Your task to perform on an android device: empty trash in google photos Image 0: 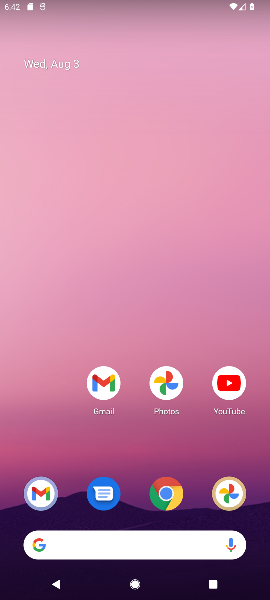
Step 0: press home button
Your task to perform on an android device: empty trash in google photos Image 1: 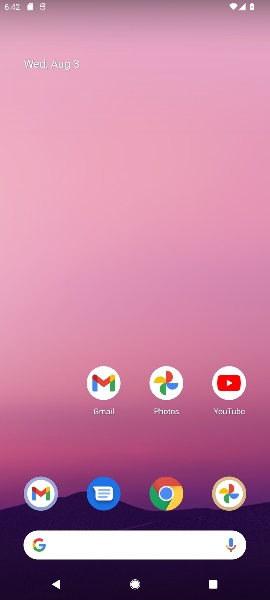
Step 1: drag from (104, 434) to (138, 135)
Your task to perform on an android device: empty trash in google photos Image 2: 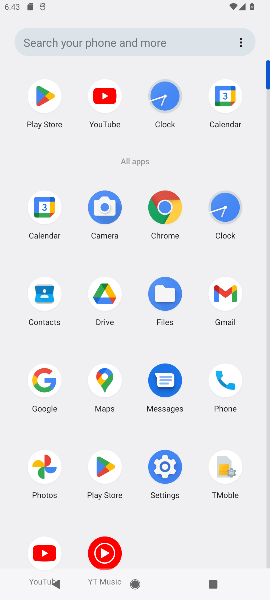
Step 2: click (45, 461)
Your task to perform on an android device: empty trash in google photos Image 3: 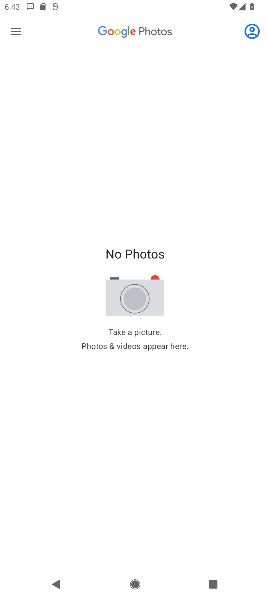
Step 3: click (8, 36)
Your task to perform on an android device: empty trash in google photos Image 4: 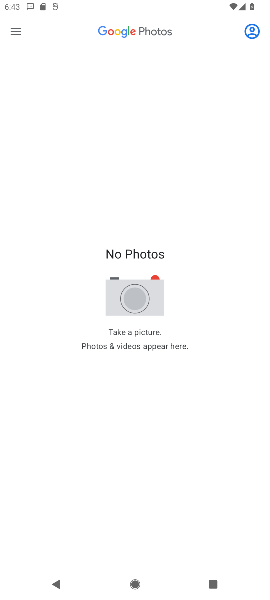
Step 4: click (16, 28)
Your task to perform on an android device: empty trash in google photos Image 5: 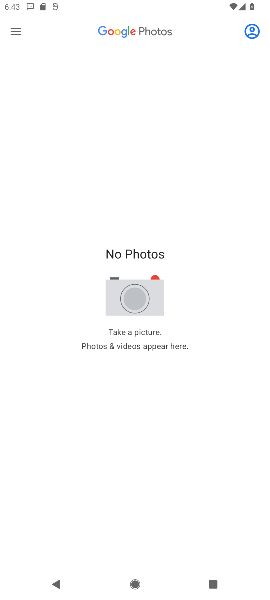
Step 5: click (19, 28)
Your task to perform on an android device: empty trash in google photos Image 6: 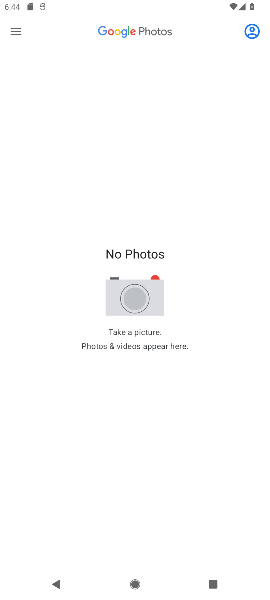
Step 6: click (19, 28)
Your task to perform on an android device: empty trash in google photos Image 7: 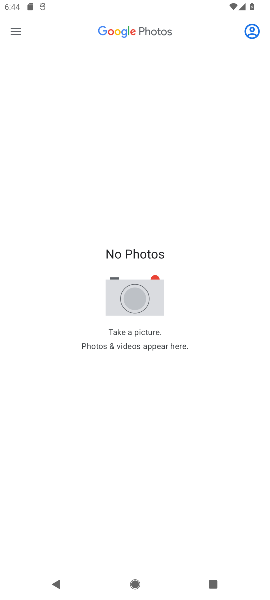
Step 7: click (19, 28)
Your task to perform on an android device: empty trash in google photos Image 8: 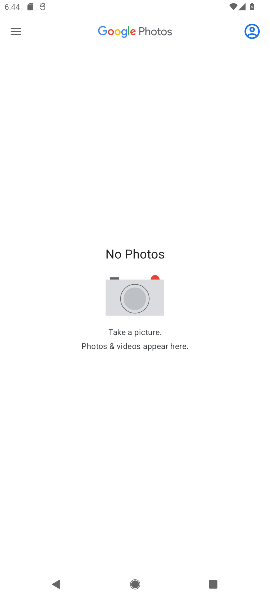
Step 8: click (7, 23)
Your task to perform on an android device: empty trash in google photos Image 9: 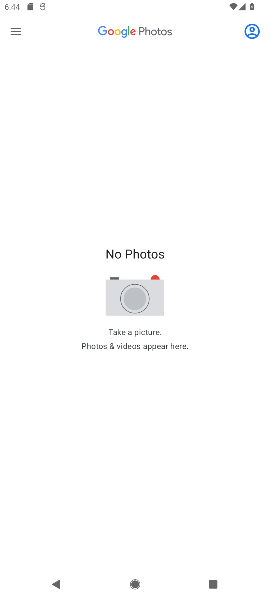
Step 9: click (14, 30)
Your task to perform on an android device: empty trash in google photos Image 10: 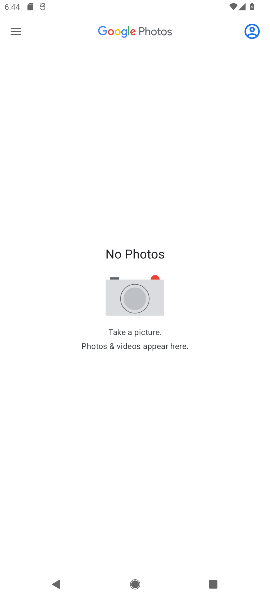
Step 10: click (14, 30)
Your task to perform on an android device: empty trash in google photos Image 11: 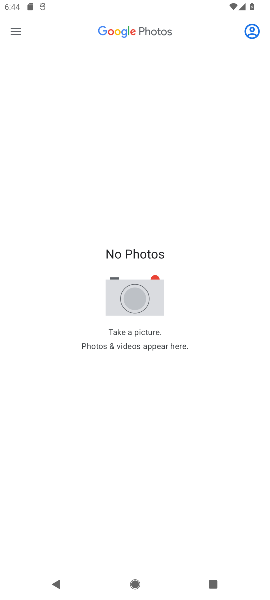
Step 11: click (14, 30)
Your task to perform on an android device: empty trash in google photos Image 12: 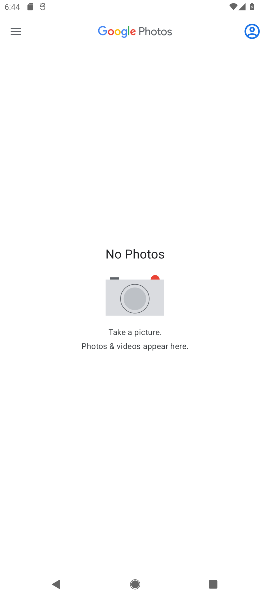
Step 12: click (14, 30)
Your task to perform on an android device: empty trash in google photos Image 13: 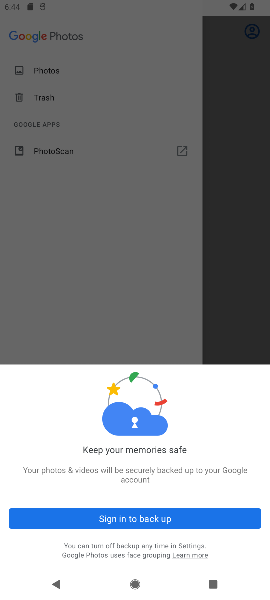
Step 13: click (154, 254)
Your task to perform on an android device: empty trash in google photos Image 14: 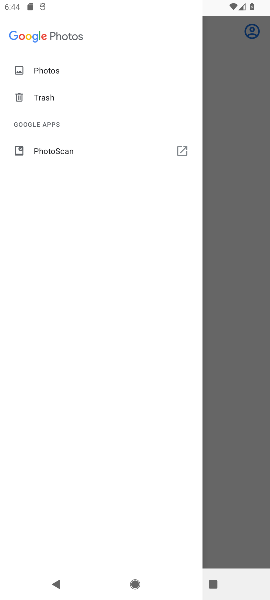
Step 14: click (26, 93)
Your task to perform on an android device: empty trash in google photos Image 15: 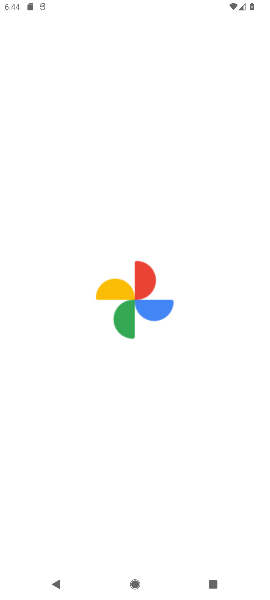
Step 15: task complete